Your task to perform on an android device: Show me popular games on the Play Store Image 0: 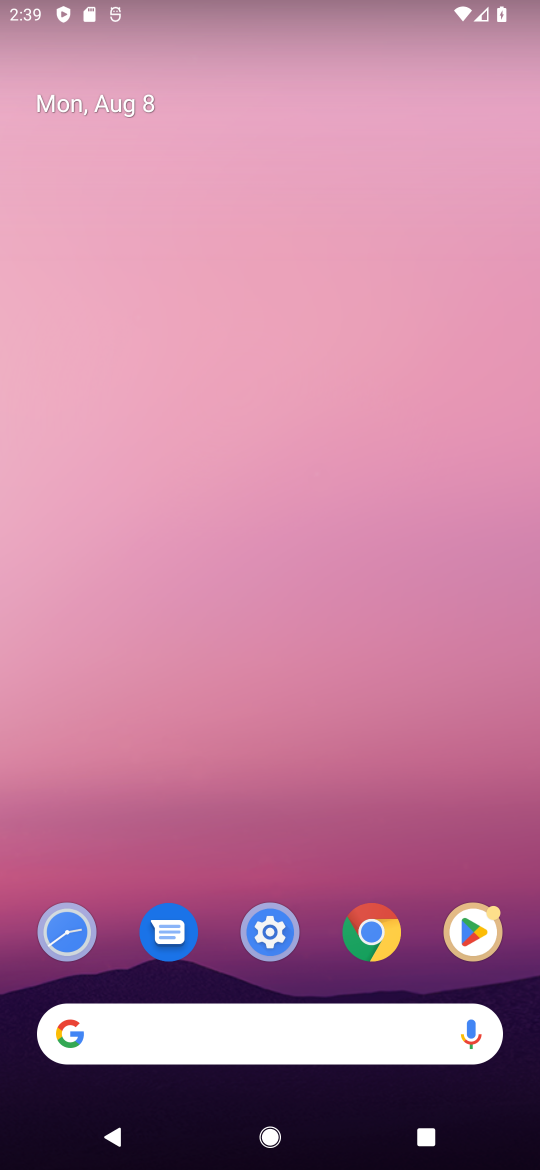
Step 0: drag from (367, 888) to (432, 22)
Your task to perform on an android device: Show me popular games on the Play Store Image 1: 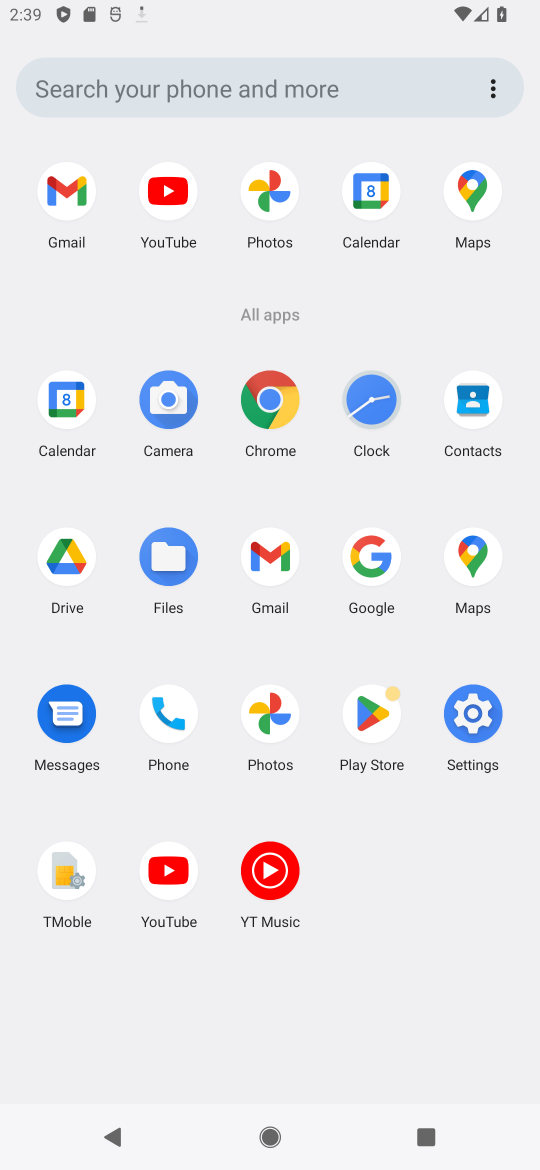
Step 1: click (365, 714)
Your task to perform on an android device: Show me popular games on the Play Store Image 2: 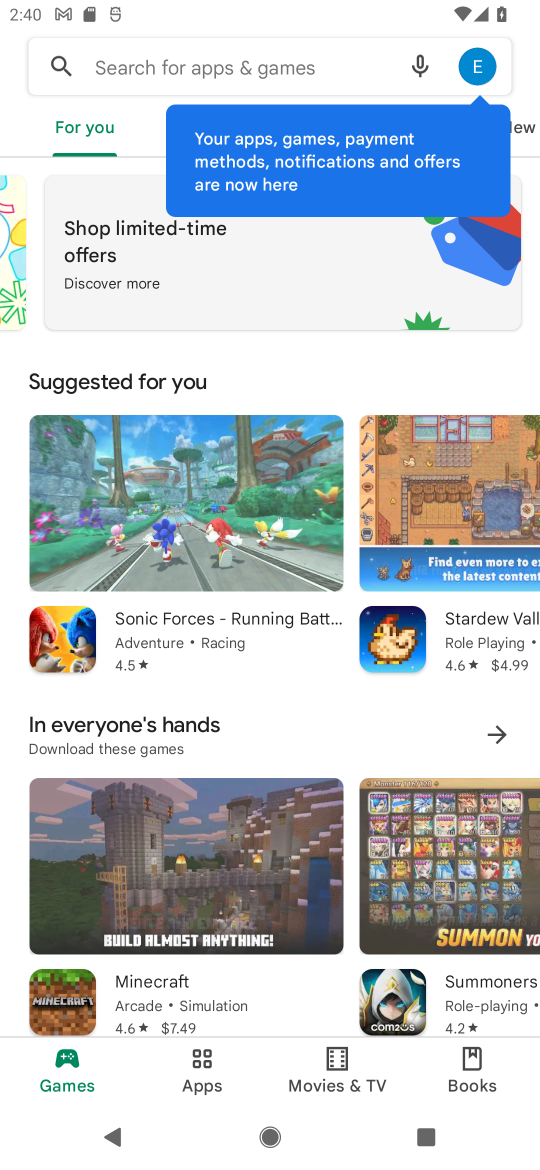
Step 2: click (203, 84)
Your task to perform on an android device: Show me popular games on the Play Store Image 3: 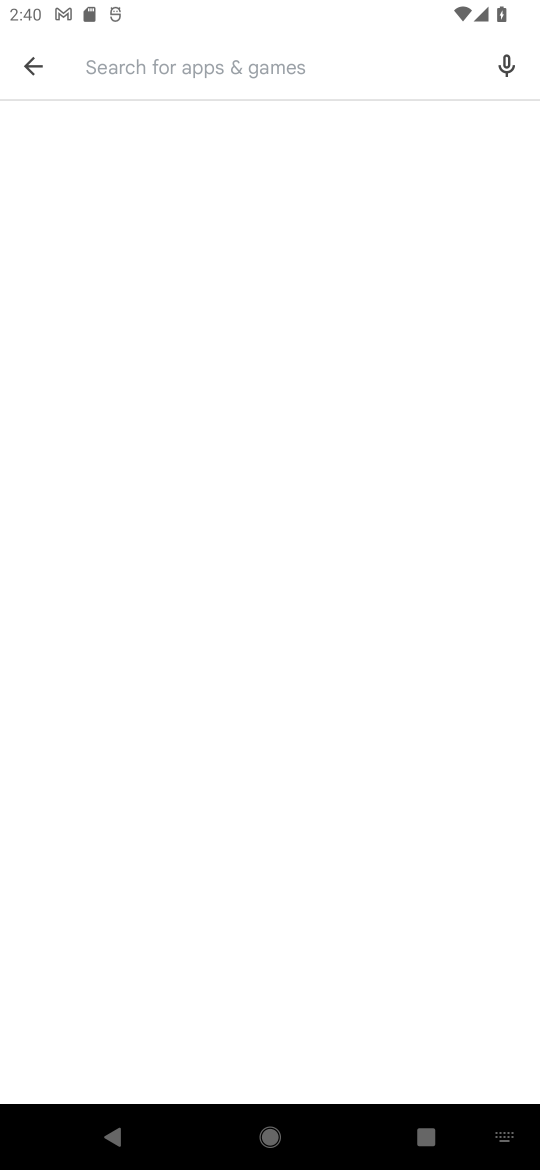
Step 3: type "popular games"
Your task to perform on an android device: Show me popular games on the Play Store Image 4: 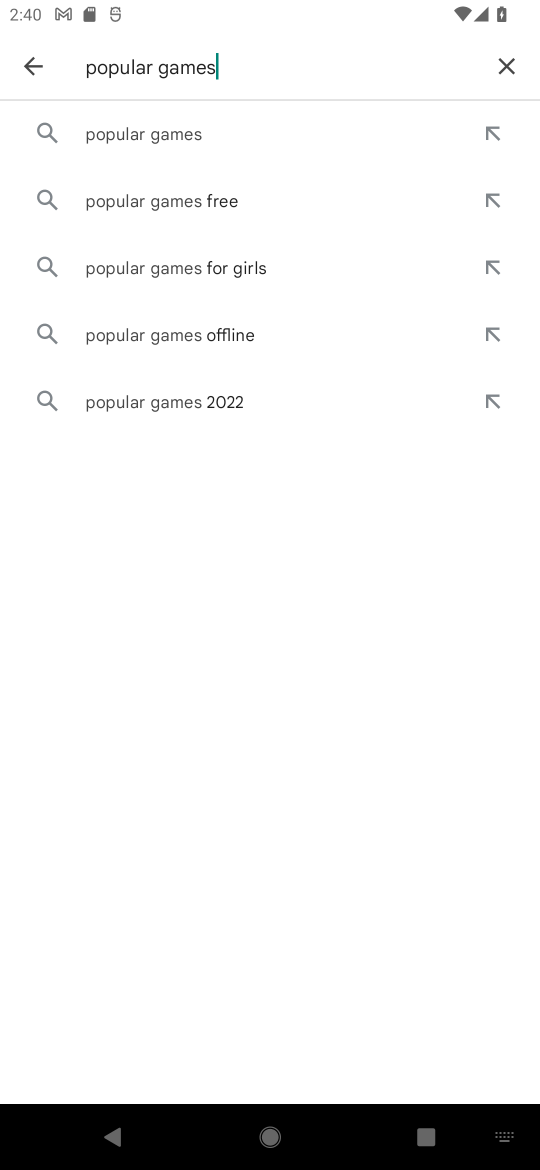
Step 4: click (138, 137)
Your task to perform on an android device: Show me popular games on the Play Store Image 5: 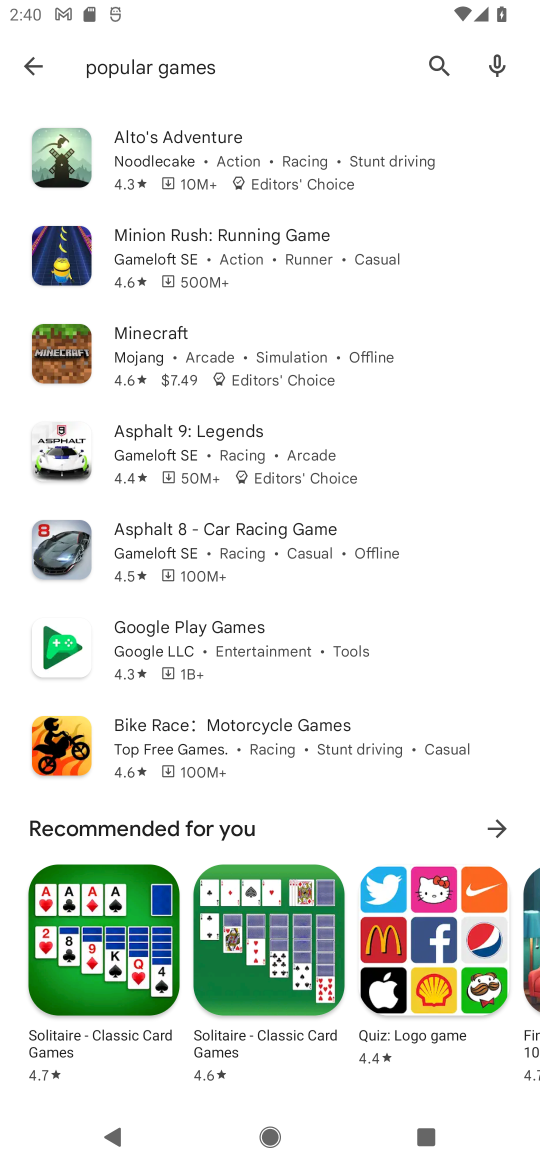
Step 5: task complete